Your task to perform on an android device: Open settings Image 0: 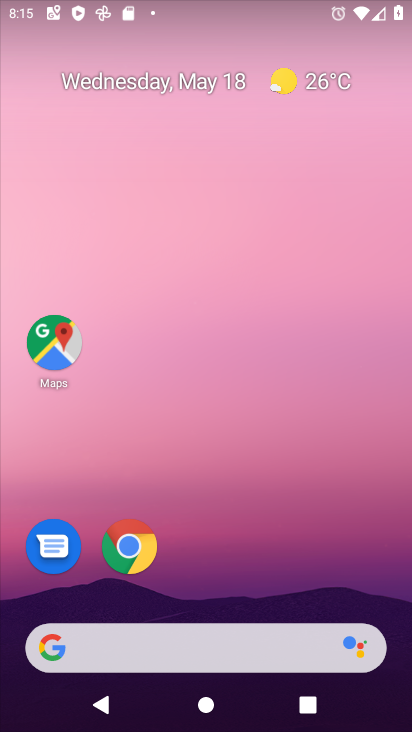
Step 0: drag from (394, 606) to (307, 53)
Your task to perform on an android device: Open settings Image 1: 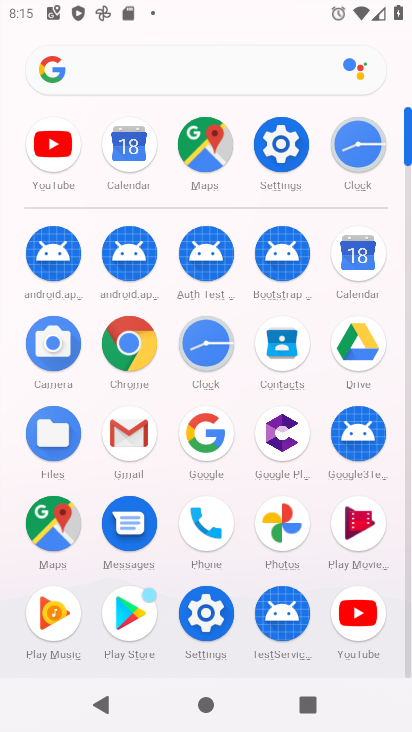
Step 1: click (208, 613)
Your task to perform on an android device: Open settings Image 2: 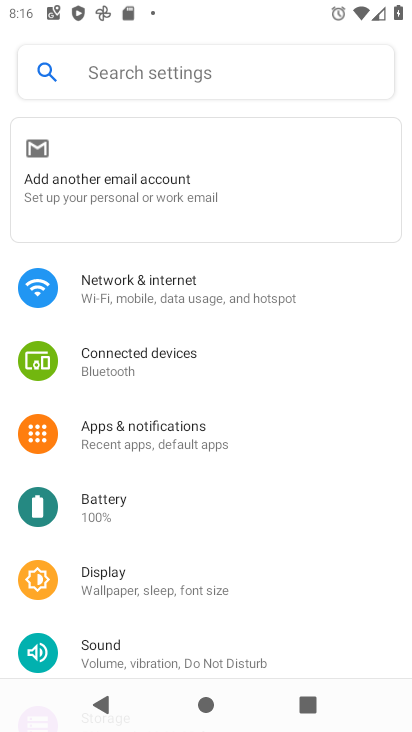
Step 2: task complete